Your task to perform on an android device: Open eBay Image 0: 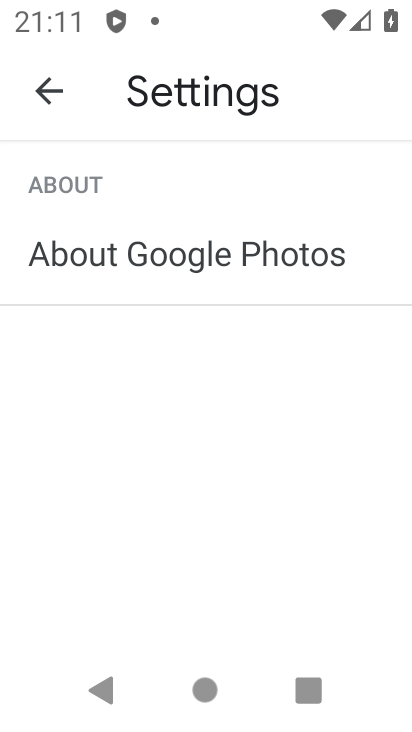
Step 0: press home button
Your task to perform on an android device: Open eBay Image 1: 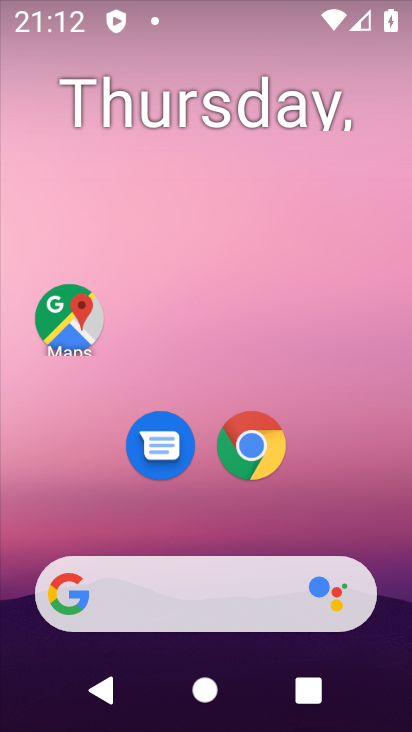
Step 1: click (256, 439)
Your task to perform on an android device: Open eBay Image 2: 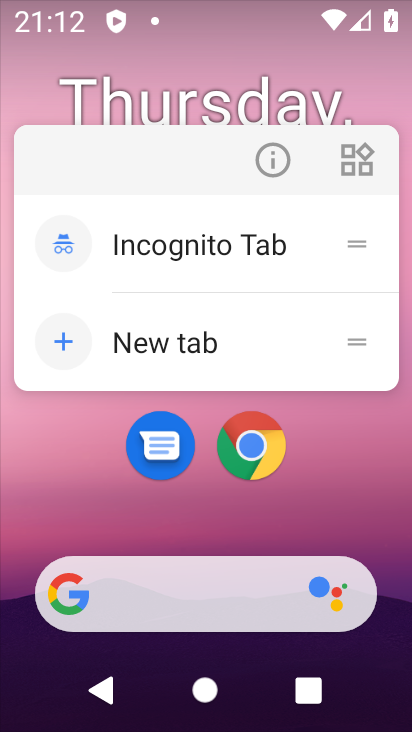
Step 2: click (250, 439)
Your task to perform on an android device: Open eBay Image 3: 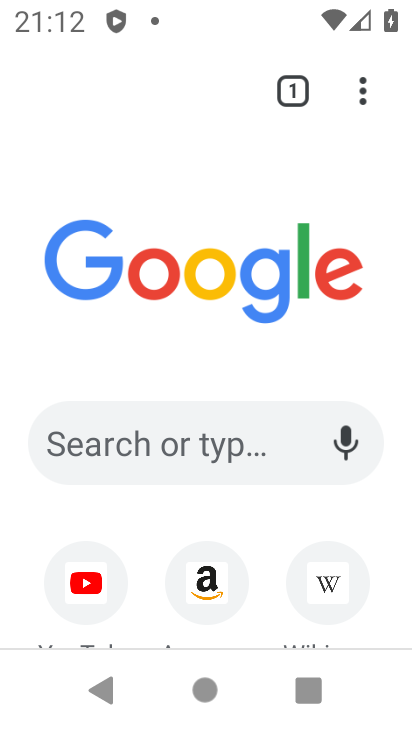
Step 3: drag from (19, 531) to (222, 172)
Your task to perform on an android device: Open eBay Image 4: 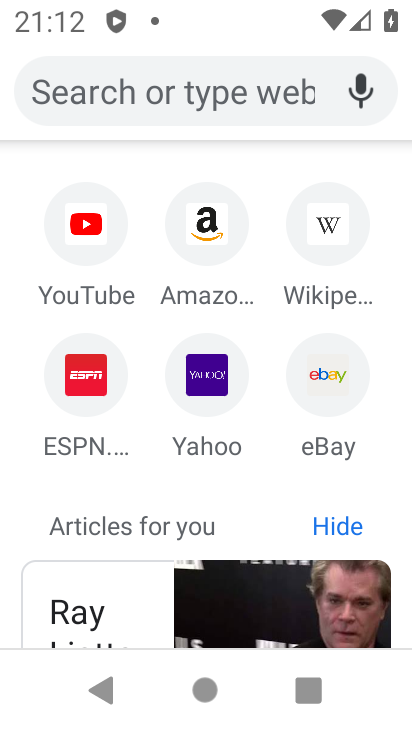
Step 4: click (333, 365)
Your task to perform on an android device: Open eBay Image 5: 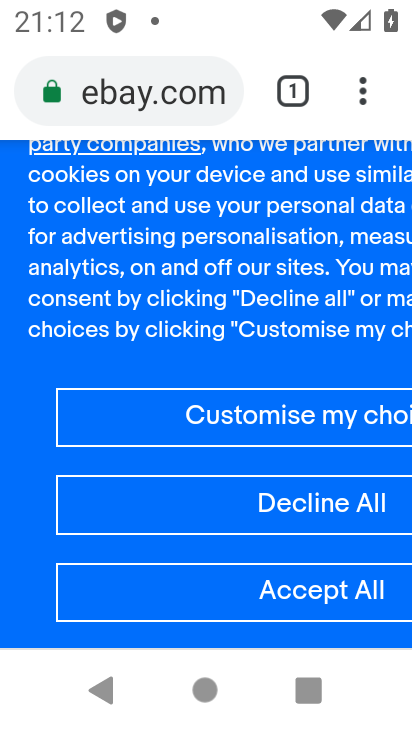
Step 5: task complete